Your task to perform on an android device: change text size in settings app Image 0: 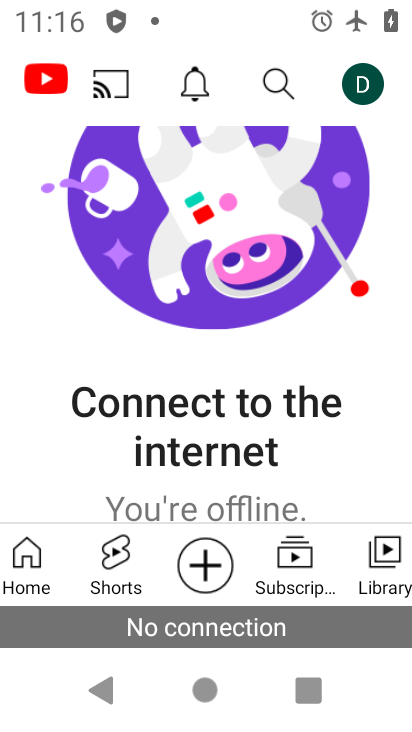
Step 0: drag from (220, 524) to (195, 259)
Your task to perform on an android device: change text size in settings app Image 1: 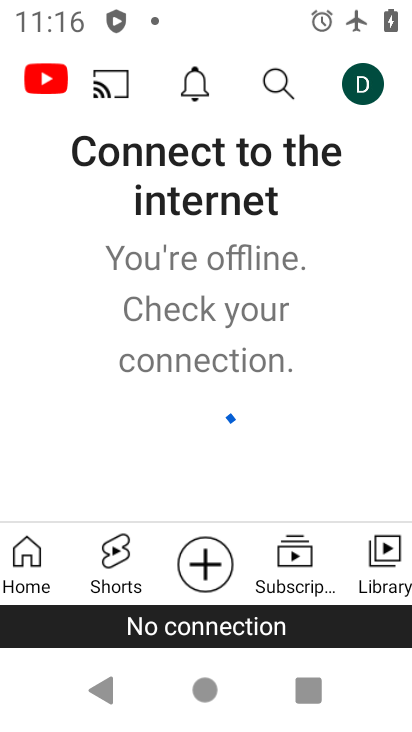
Step 1: press home button
Your task to perform on an android device: change text size in settings app Image 2: 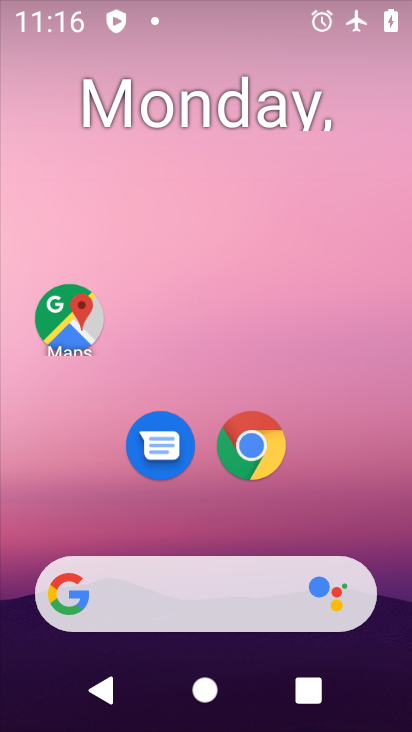
Step 2: drag from (189, 520) to (203, 157)
Your task to perform on an android device: change text size in settings app Image 3: 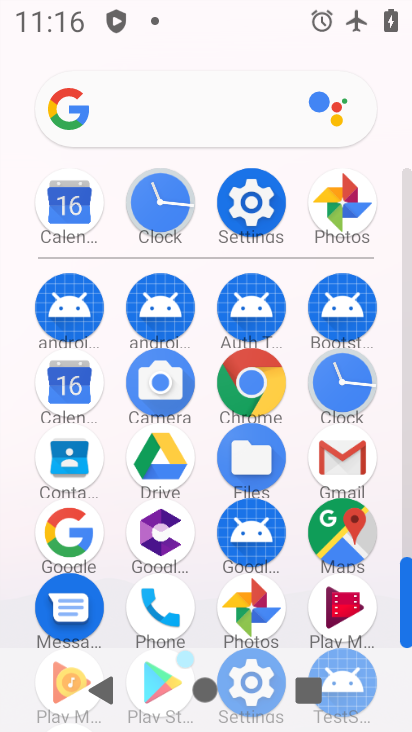
Step 3: click (256, 206)
Your task to perform on an android device: change text size in settings app Image 4: 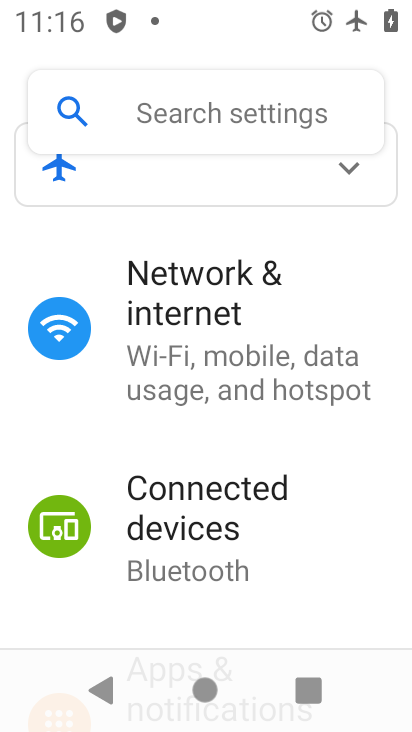
Step 4: drag from (177, 605) to (174, 277)
Your task to perform on an android device: change text size in settings app Image 5: 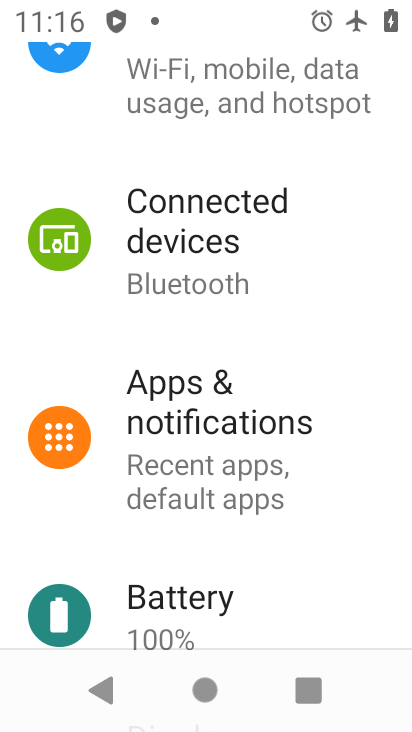
Step 5: drag from (154, 564) to (184, 281)
Your task to perform on an android device: change text size in settings app Image 6: 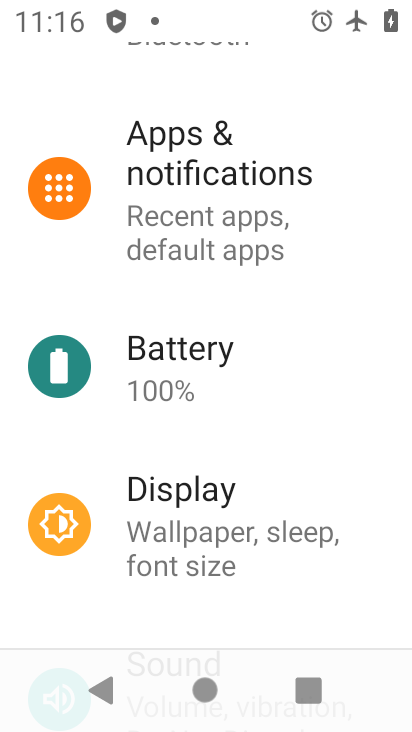
Step 6: click (185, 557)
Your task to perform on an android device: change text size in settings app Image 7: 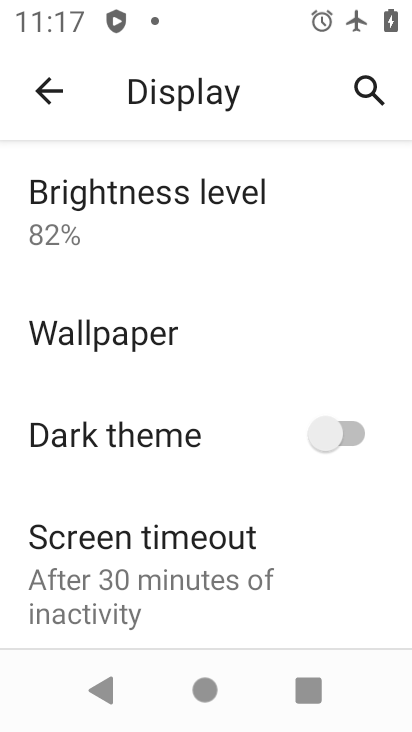
Step 7: drag from (189, 598) to (165, 190)
Your task to perform on an android device: change text size in settings app Image 8: 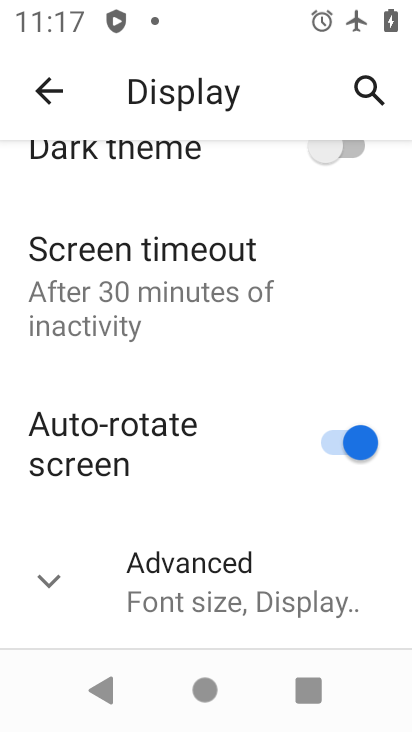
Step 8: click (139, 577)
Your task to perform on an android device: change text size in settings app Image 9: 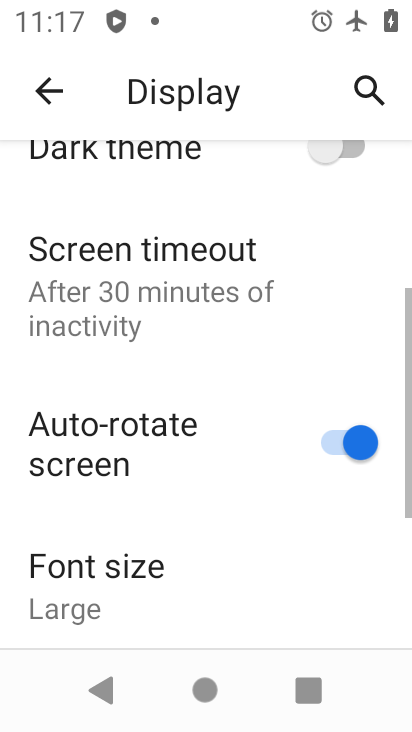
Step 9: click (141, 573)
Your task to perform on an android device: change text size in settings app Image 10: 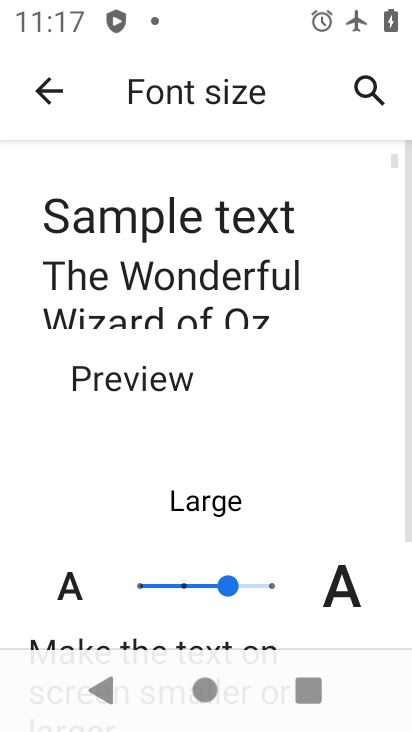
Step 10: click (138, 585)
Your task to perform on an android device: change text size in settings app Image 11: 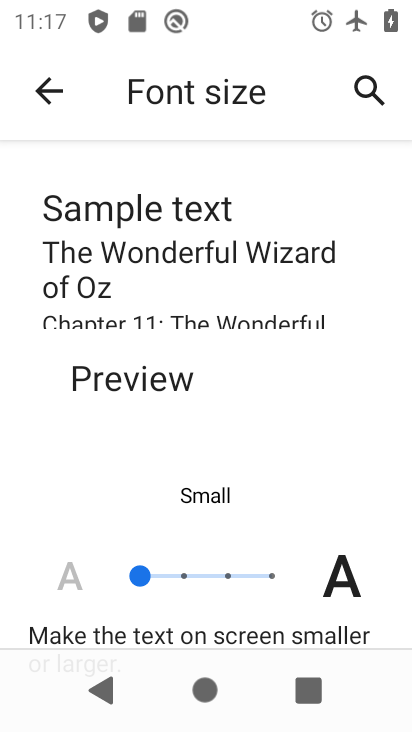
Step 11: task complete